Your task to perform on an android device: Open the web browser Image 0: 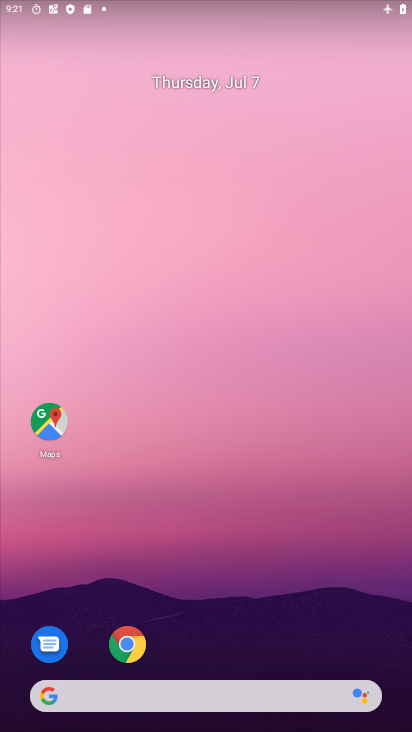
Step 0: drag from (304, 634) to (252, 96)
Your task to perform on an android device: Open the web browser Image 1: 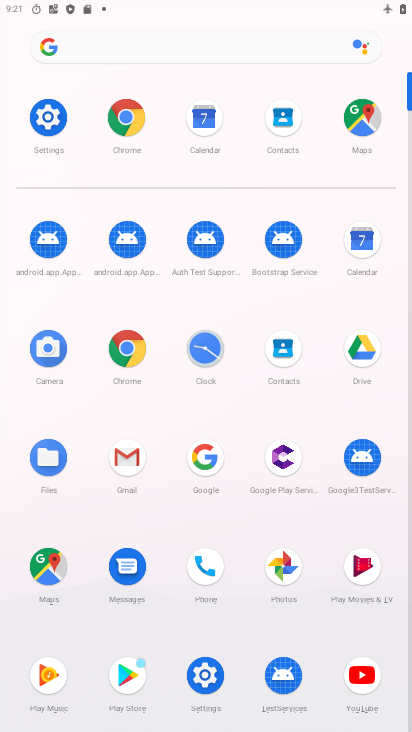
Step 1: click (124, 119)
Your task to perform on an android device: Open the web browser Image 2: 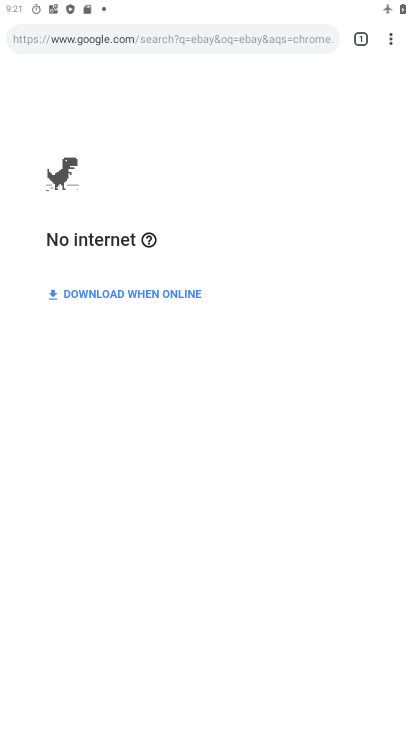
Step 2: task complete